Your task to perform on an android device: toggle location history Image 0: 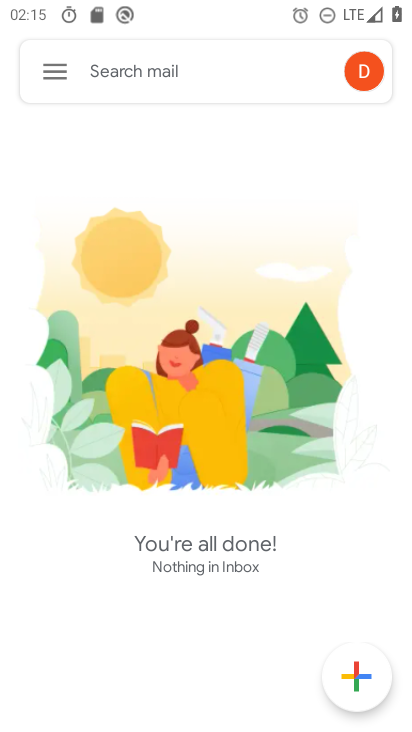
Step 0: press home button
Your task to perform on an android device: toggle location history Image 1: 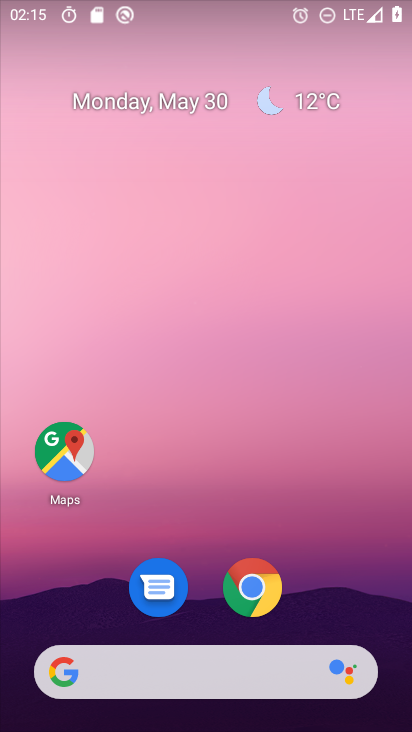
Step 1: drag from (354, 509) to (306, 95)
Your task to perform on an android device: toggle location history Image 2: 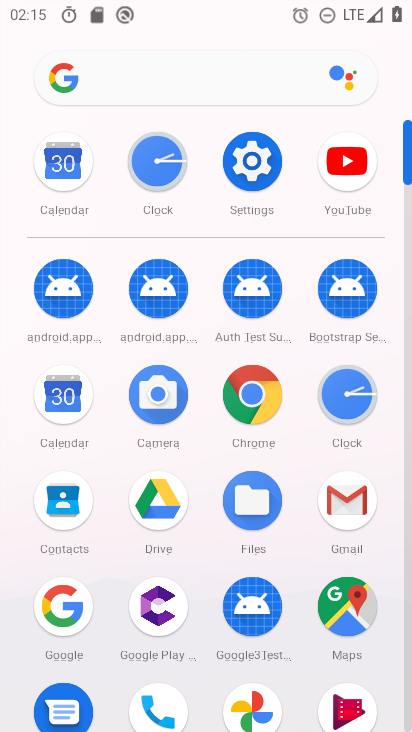
Step 2: click (253, 156)
Your task to perform on an android device: toggle location history Image 3: 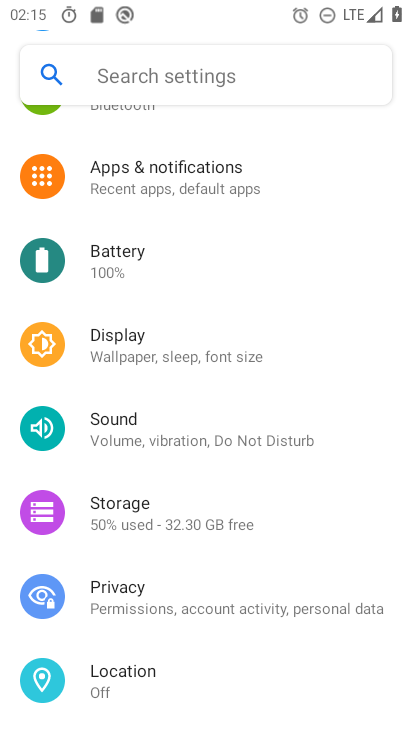
Step 3: drag from (275, 579) to (280, 143)
Your task to perform on an android device: toggle location history Image 4: 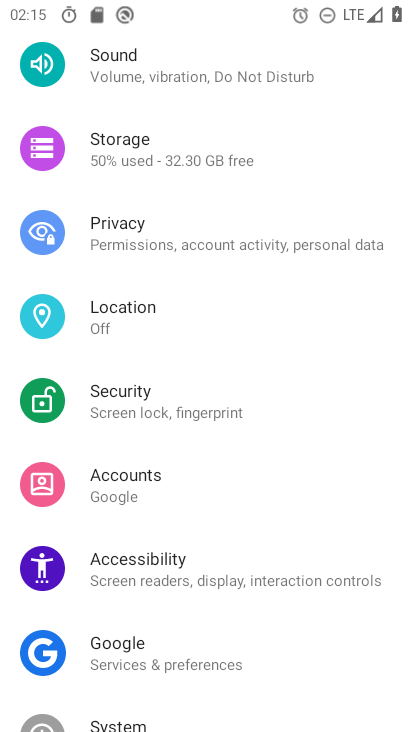
Step 4: click (214, 331)
Your task to perform on an android device: toggle location history Image 5: 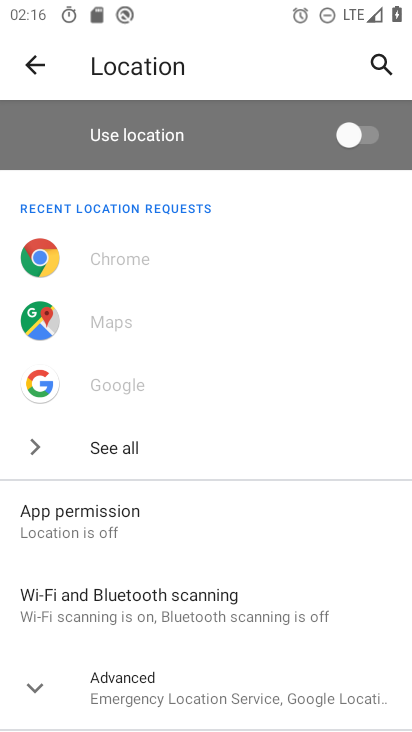
Step 5: click (187, 681)
Your task to perform on an android device: toggle location history Image 6: 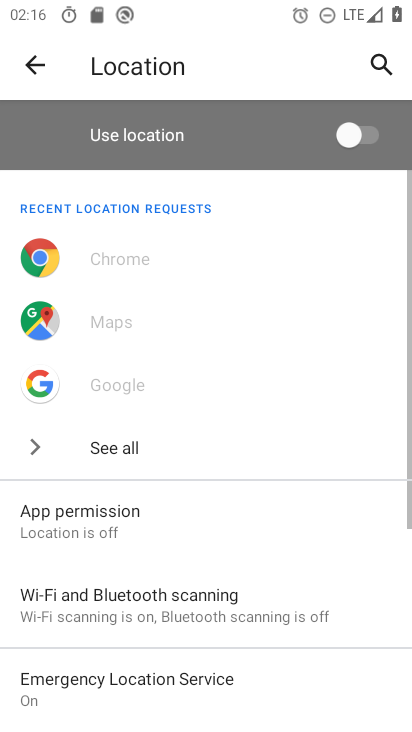
Step 6: drag from (283, 553) to (322, 113)
Your task to perform on an android device: toggle location history Image 7: 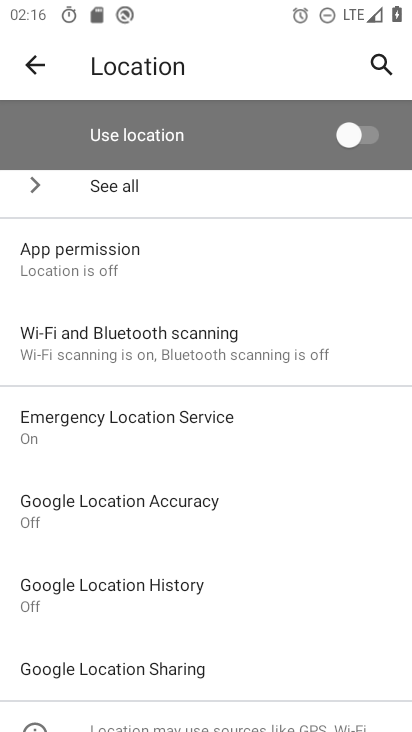
Step 7: click (189, 594)
Your task to perform on an android device: toggle location history Image 8: 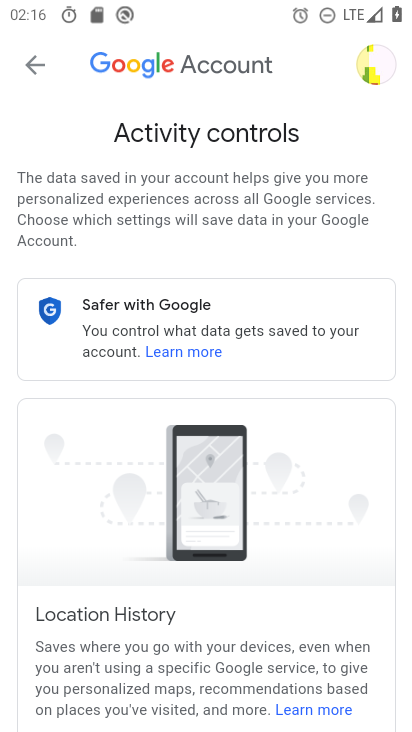
Step 8: drag from (218, 611) to (302, 173)
Your task to perform on an android device: toggle location history Image 9: 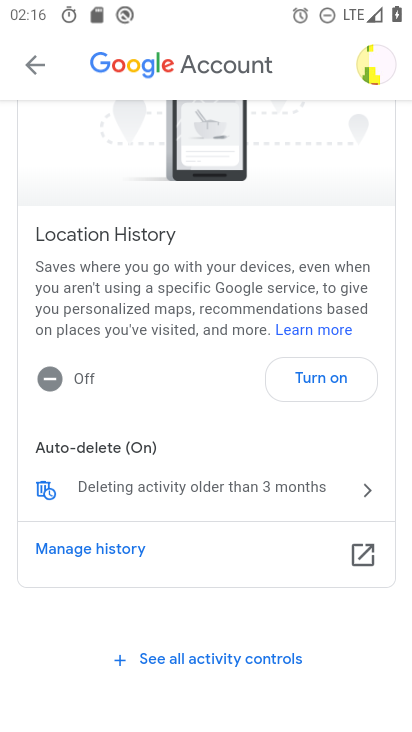
Step 9: click (330, 380)
Your task to perform on an android device: toggle location history Image 10: 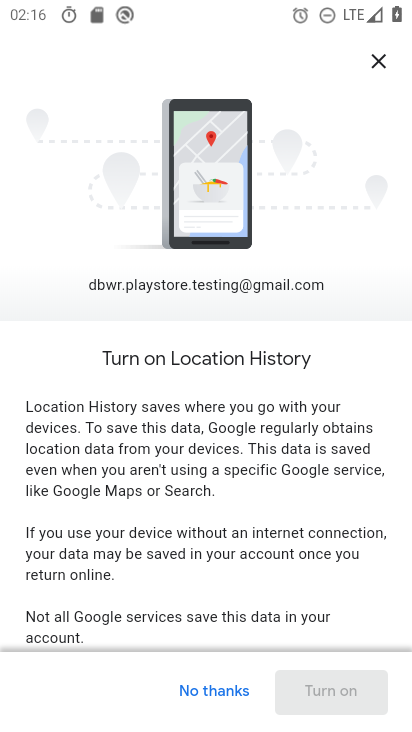
Step 10: drag from (290, 550) to (273, 151)
Your task to perform on an android device: toggle location history Image 11: 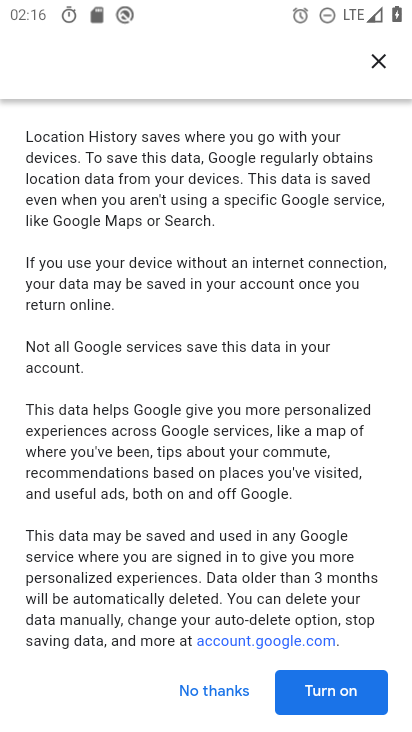
Step 11: click (317, 697)
Your task to perform on an android device: toggle location history Image 12: 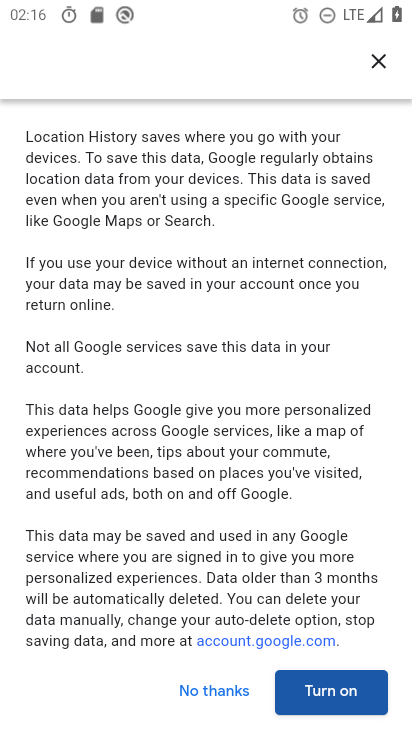
Step 12: click (325, 682)
Your task to perform on an android device: toggle location history Image 13: 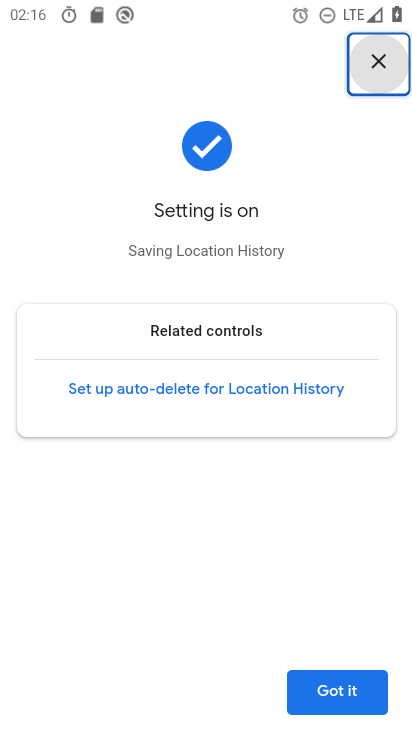
Step 13: task complete